Your task to perform on an android device: open sync settings in chrome Image 0: 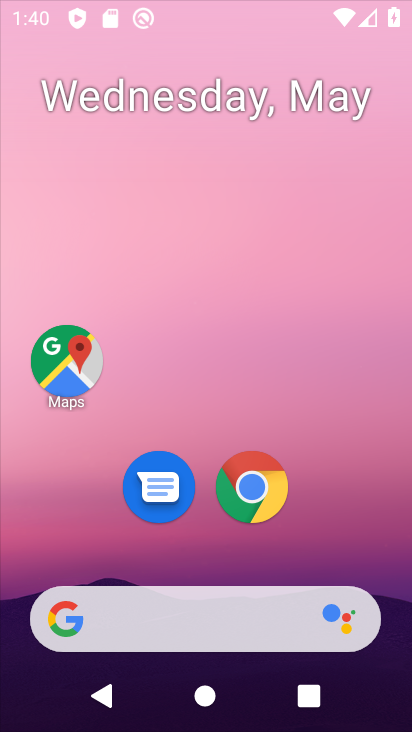
Step 0: press home button
Your task to perform on an android device: open sync settings in chrome Image 1: 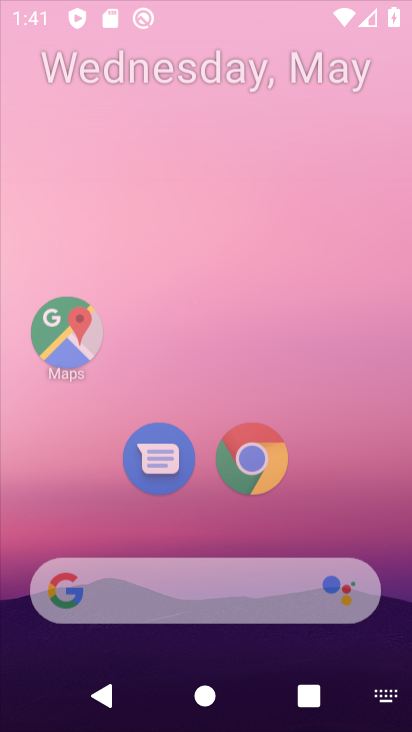
Step 1: drag from (288, 545) to (171, 44)
Your task to perform on an android device: open sync settings in chrome Image 2: 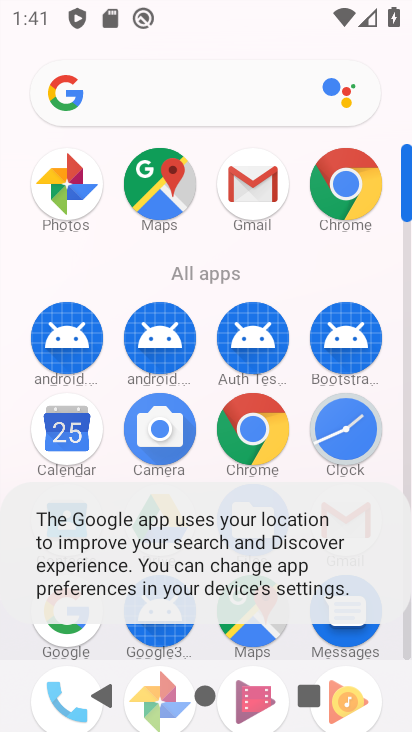
Step 2: press home button
Your task to perform on an android device: open sync settings in chrome Image 3: 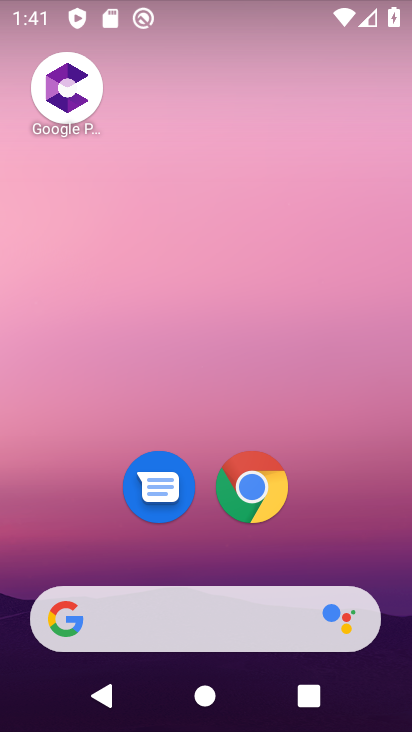
Step 3: drag from (271, 570) to (232, 8)
Your task to perform on an android device: open sync settings in chrome Image 4: 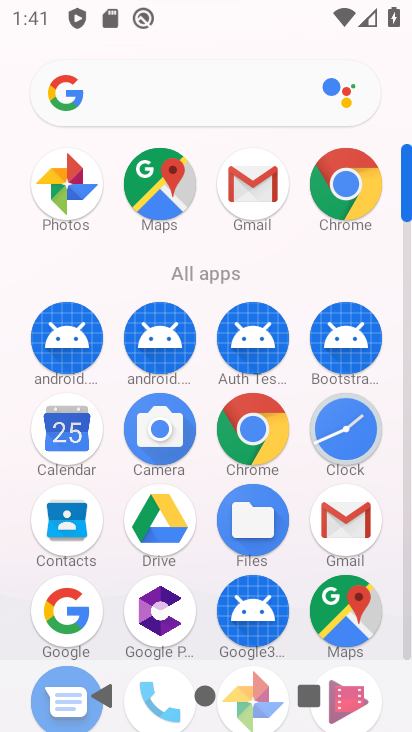
Step 4: click (337, 208)
Your task to perform on an android device: open sync settings in chrome Image 5: 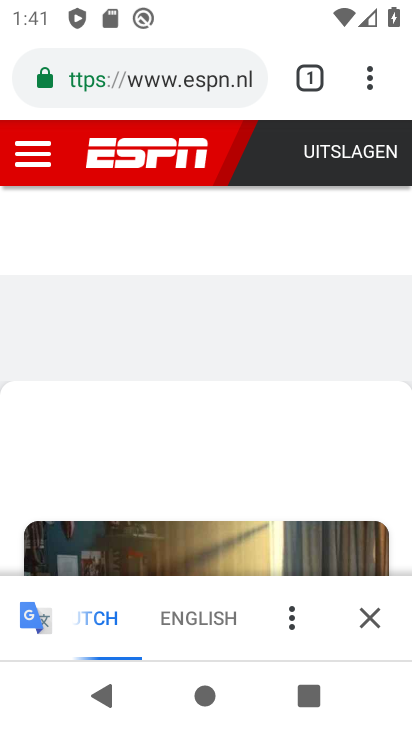
Step 5: click (365, 82)
Your task to perform on an android device: open sync settings in chrome Image 6: 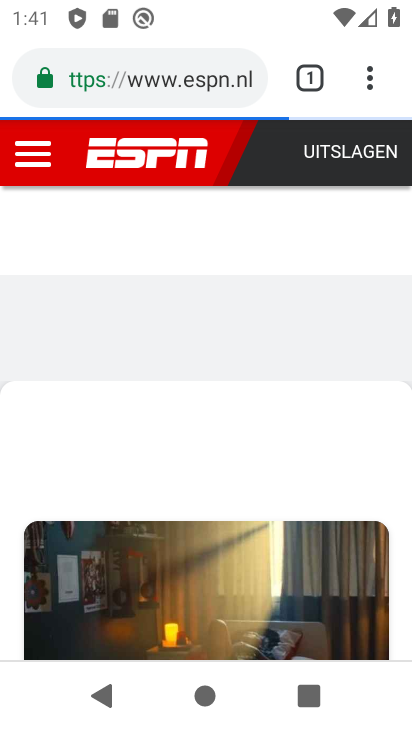
Step 6: click (369, 91)
Your task to perform on an android device: open sync settings in chrome Image 7: 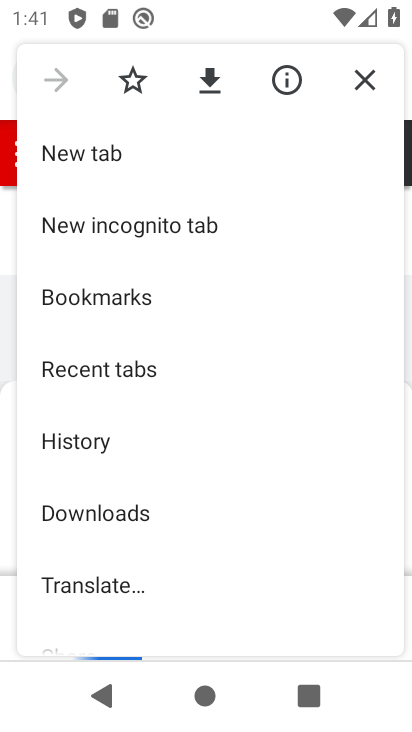
Step 7: drag from (159, 551) to (106, 106)
Your task to perform on an android device: open sync settings in chrome Image 8: 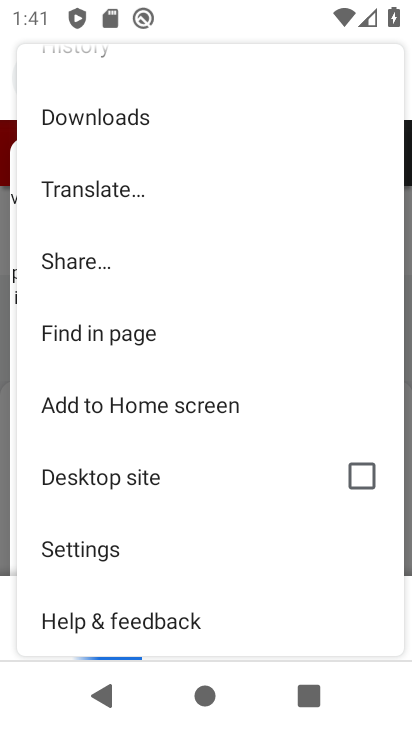
Step 8: click (81, 551)
Your task to perform on an android device: open sync settings in chrome Image 9: 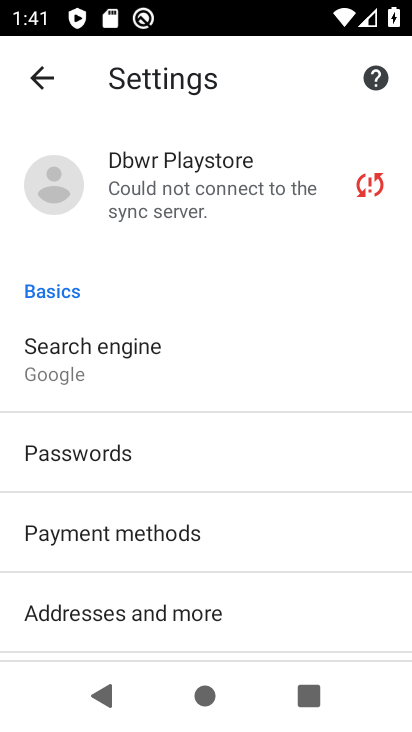
Step 9: click (150, 197)
Your task to perform on an android device: open sync settings in chrome Image 10: 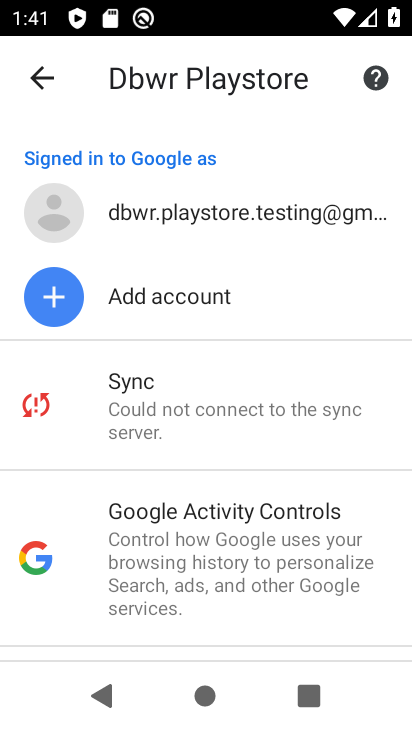
Step 10: click (142, 405)
Your task to perform on an android device: open sync settings in chrome Image 11: 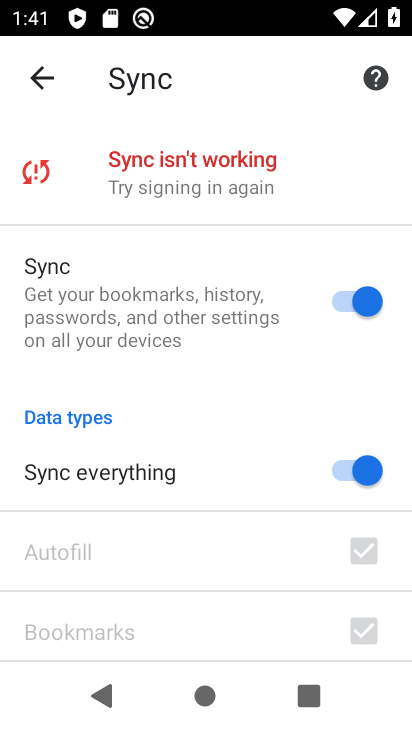
Step 11: task complete